Your task to perform on an android device: Open battery settings Image 0: 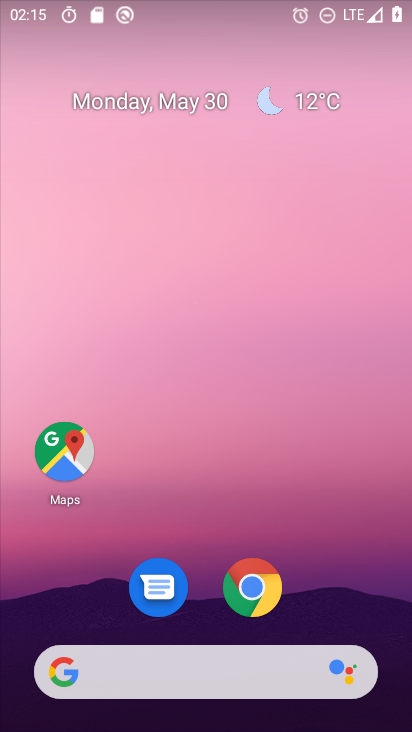
Step 0: drag from (365, 562) to (249, 81)
Your task to perform on an android device: Open battery settings Image 1: 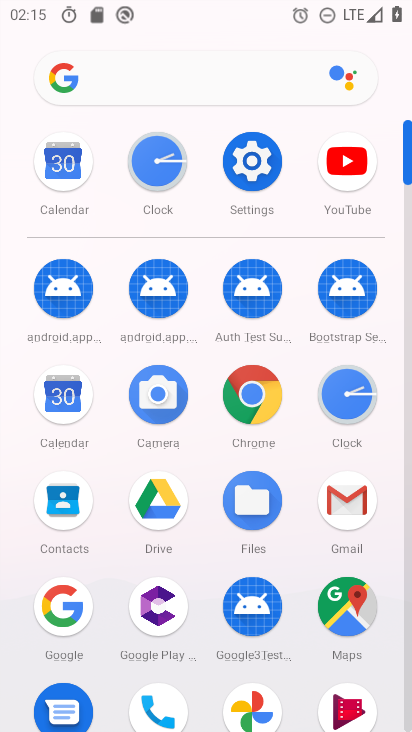
Step 1: click (243, 159)
Your task to perform on an android device: Open battery settings Image 2: 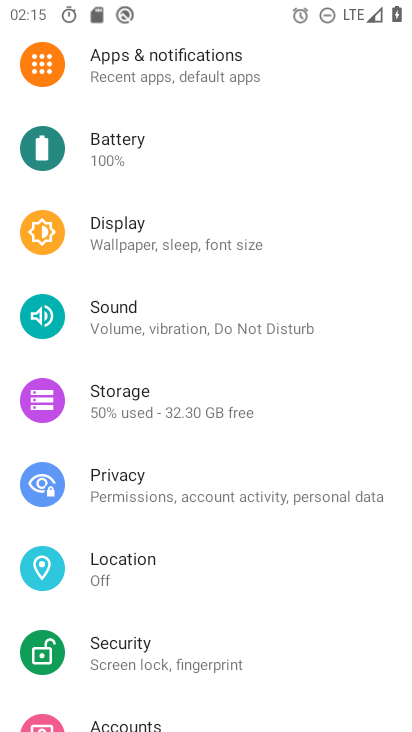
Step 2: drag from (221, 528) to (231, 624)
Your task to perform on an android device: Open battery settings Image 3: 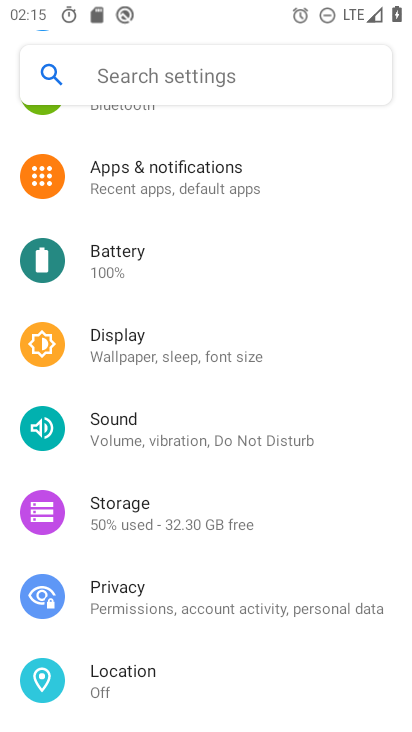
Step 3: click (163, 268)
Your task to perform on an android device: Open battery settings Image 4: 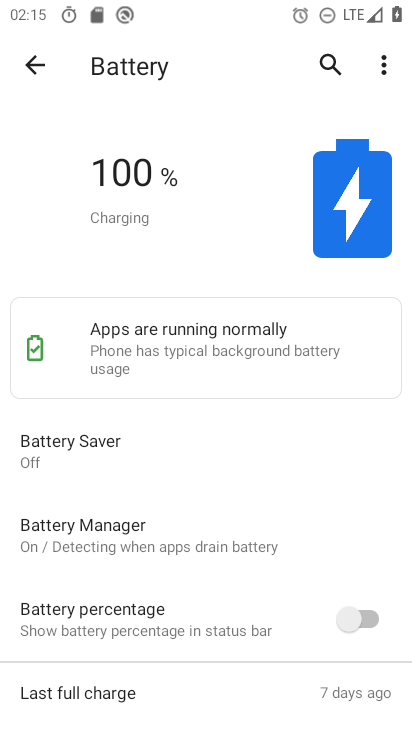
Step 4: task complete